Your task to perform on an android device: turn on sleep mode Image 0: 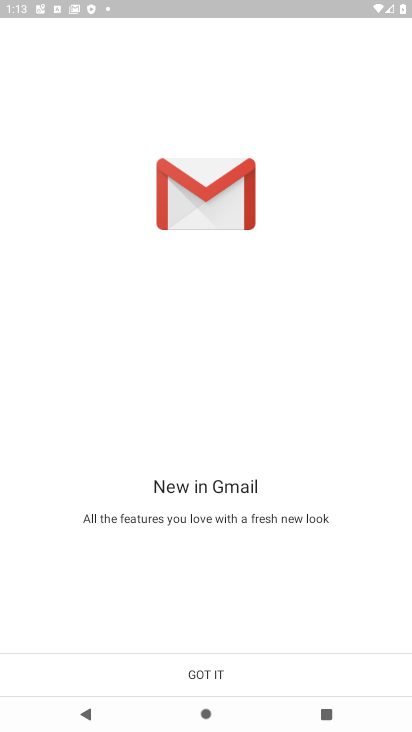
Step 0: press home button
Your task to perform on an android device: turn on sleep mode Image 1: 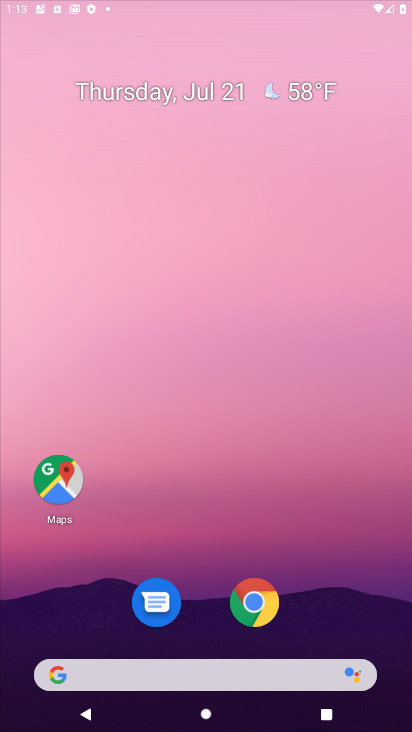
Step 1: drag from (379, 689) to (41, 233)
Your task to perform on an android device: turn on sleep mode Image 2: 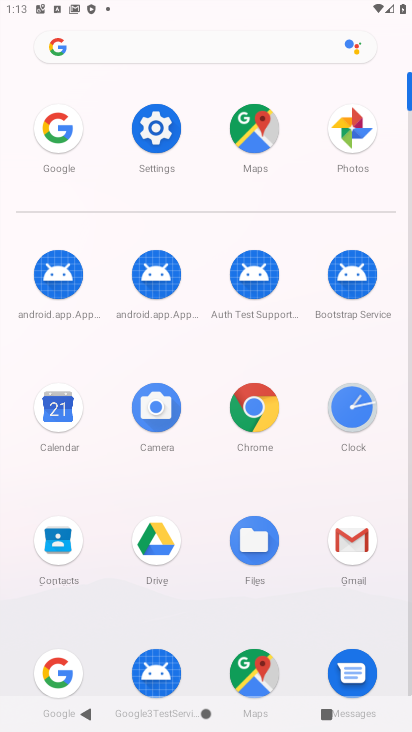
Step 2: click (159, 153)
Your task to perform on an android device: turn on sleep mode Image 3: 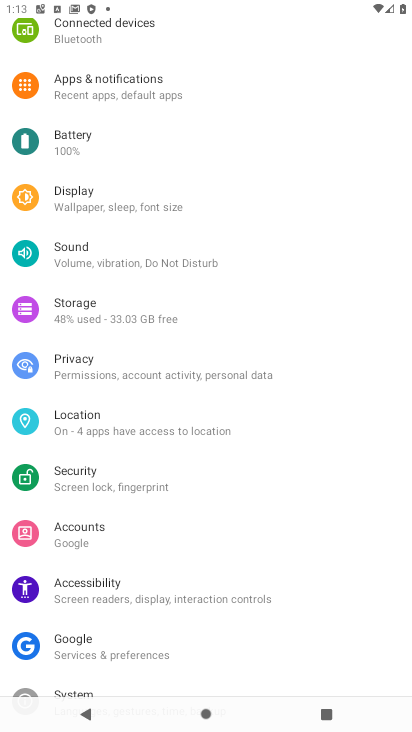
Step 3: task complete